Your task to perform on an android device: Do I have any events tomorrow? Image 0: 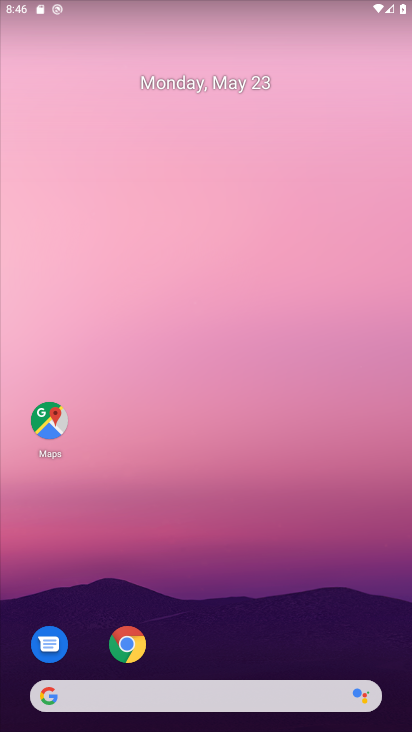
Step 0: drag from (396, 584) to (398, 79)
Your task to perform on an android device: Do I have any events tomorrow? Image 1: 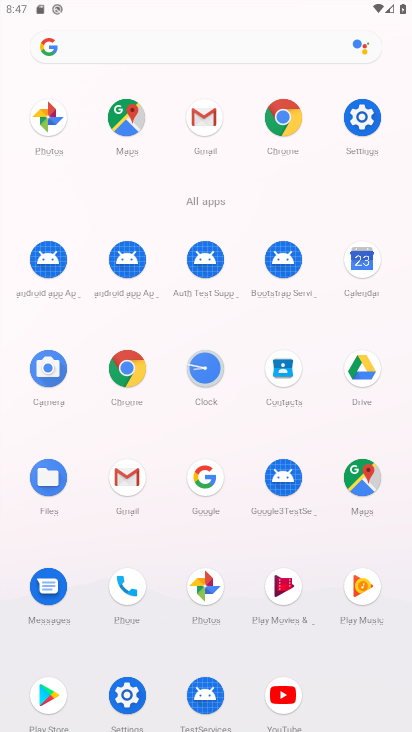
Step 1: click (367, 265)
Your task to perform on an android device: Do I have any events tomorrow? Image 2: 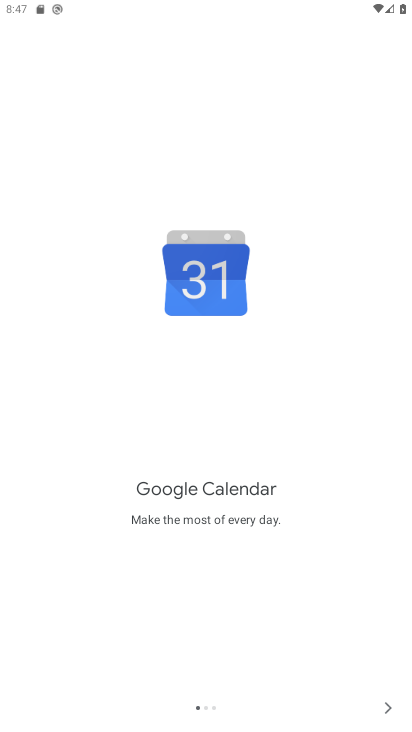
Step 2: click (383, 712)
Your task to perform on an android device: Do I have any events tomorrow? Image 3: 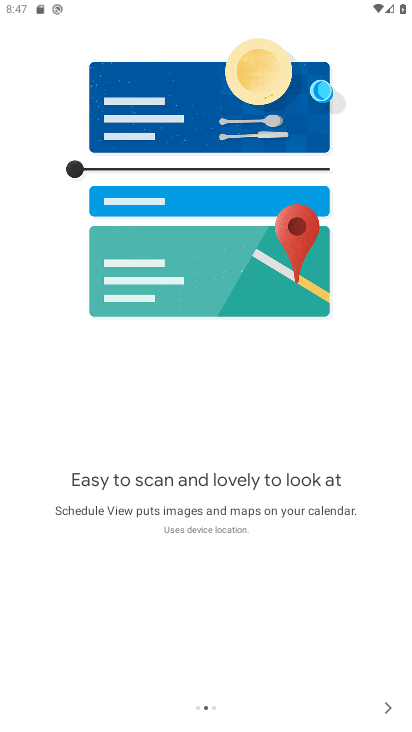
Step 3: click (379, 708)
Your task to perform on an android device: Do I have any events tomorrow? Image 4: 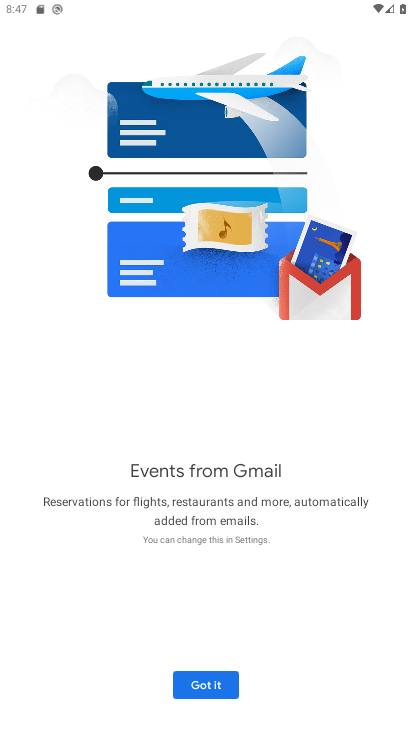
Step 4: click (209, 689)
Your task to perform on an android device: Do I have any events tomorrow? Image 5: 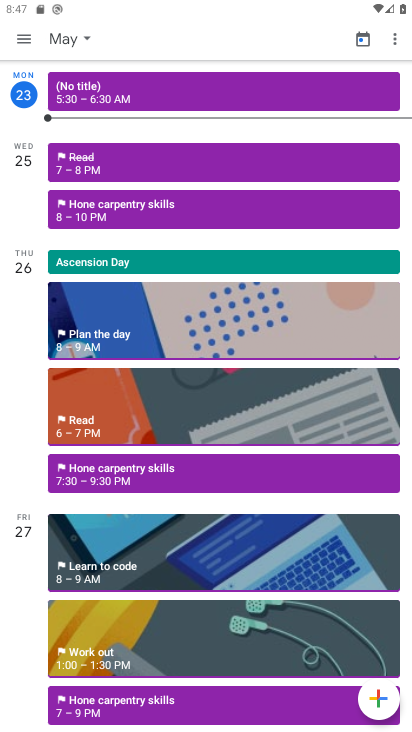
Step 5: drag from (275, 686) to (245, 294)
Your task to perform on an android device: Do I have any events tomorrow? Image 6: 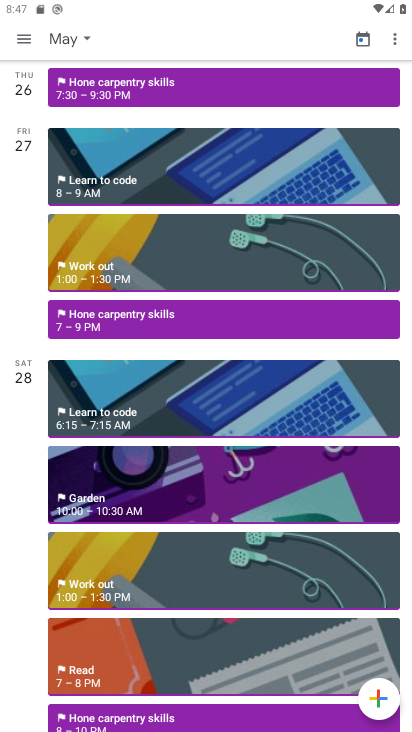
Step 6: drag from (208, 680) to (166, 330)
Your task to perform on an android device: Do I have any events tomorrow? Image 7: 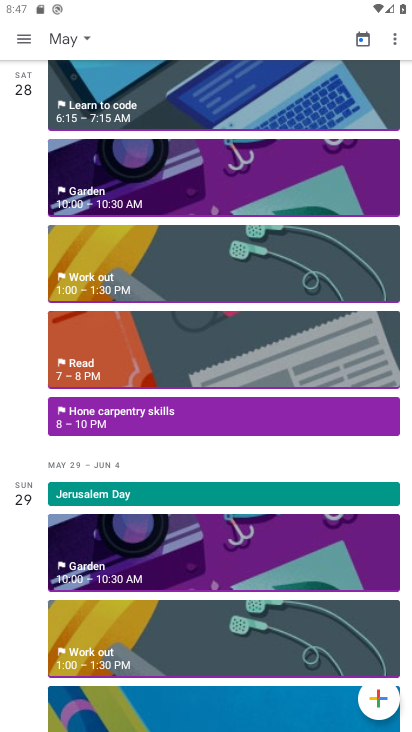
Step 7: drag from (220, 676) to (198, 303)
Your task to perform on an android device: Do I have any events tomorrow? Image 8: 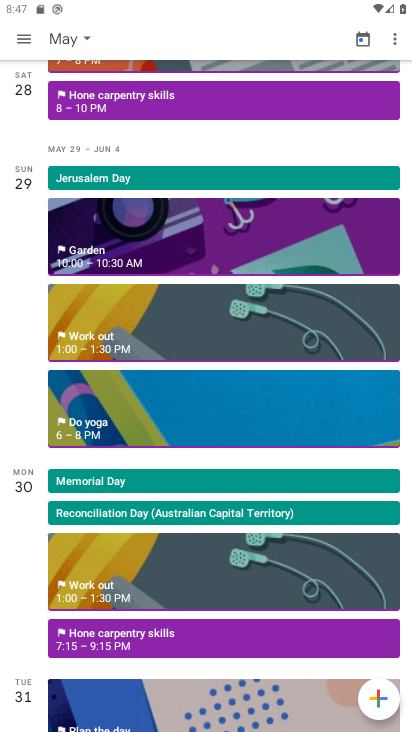
Step 8: drag from (222, 677) to (202, 249)
Your task to perform on an android device: Do I have any events tomorrow? Image 9: 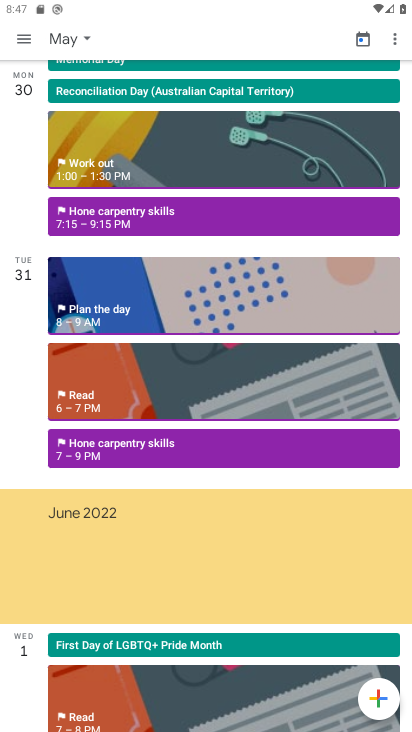
Step 9: drag from (208, 114) to (204, 719)
Your task to perform on an android device: Do I have any events tomorrow? Image 10: 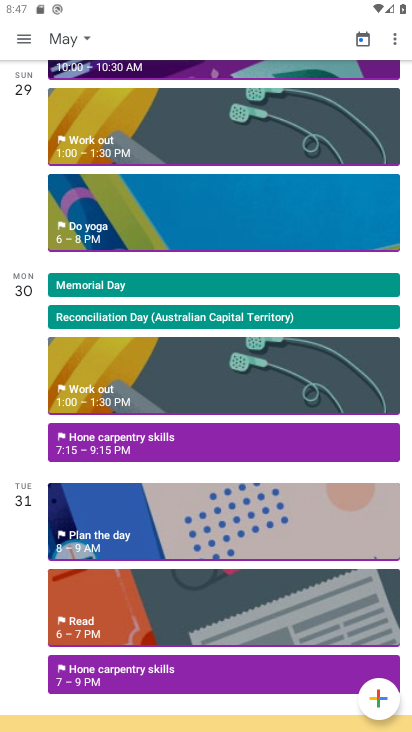
Step 10: click (58, 35)
Your task to perform on an android device: Do I have any events tomorrow? Image 11: 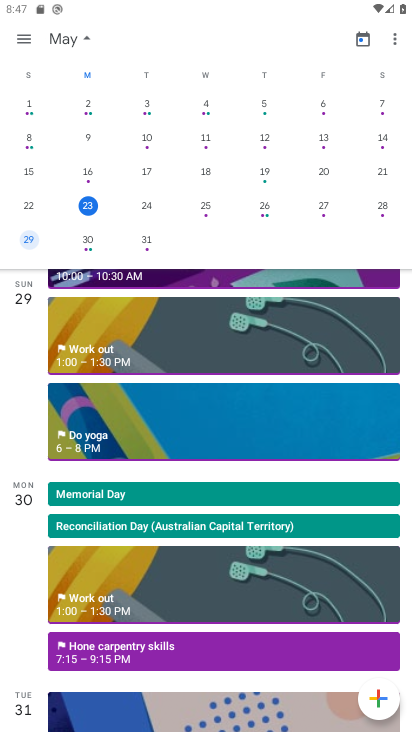
Step 11: click (145, 201)
Your task to perform on an android device: Do I have any events tomorrow? Image 12: 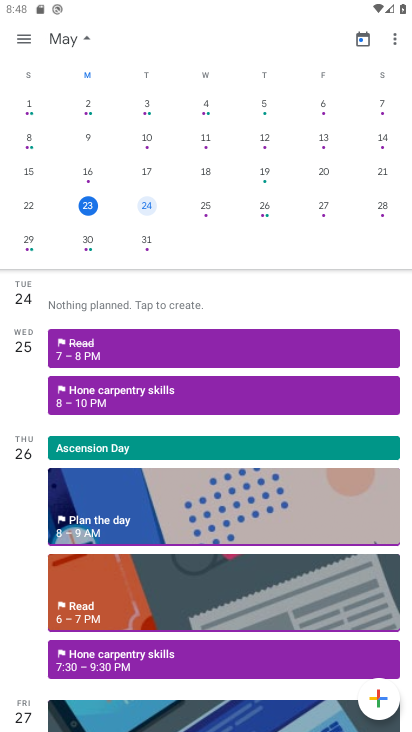
Step 12: task complete